Your task to perform on an android device: Go to wifi settings Image 0: 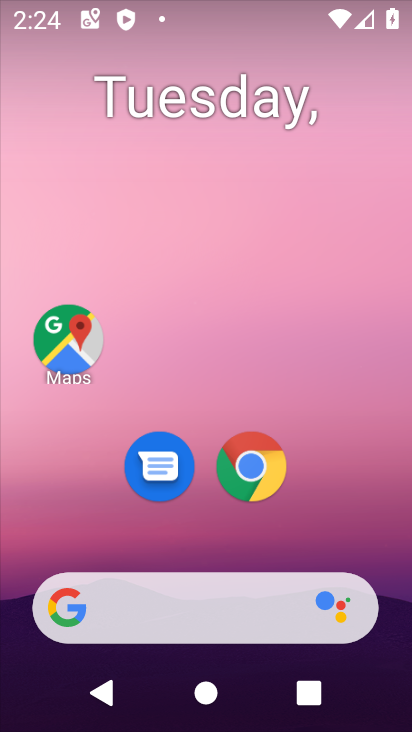
Step 0: drag from (388, 563) to (347, 67)
Your task to perform on an android device: Go to wifi settings Image 1: 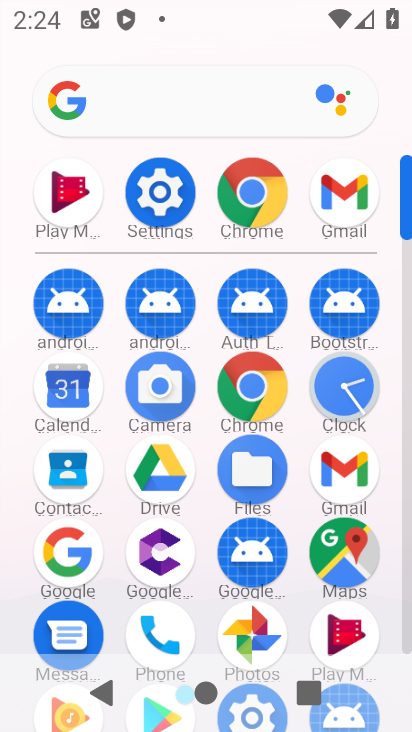
Step 1: click (172, 204)
Your task to perform on an android device: Go to wifi settings Image 2: 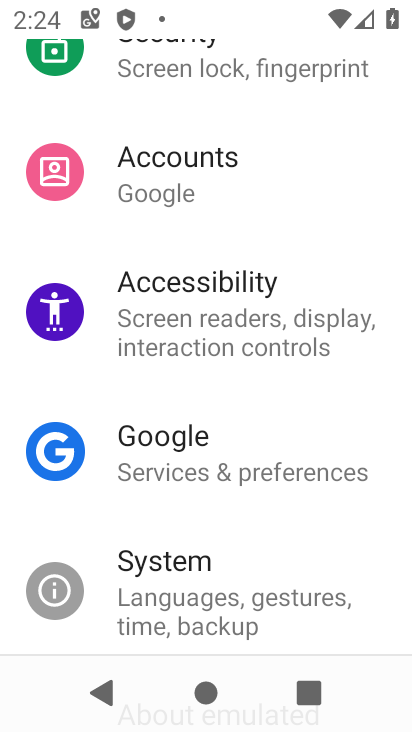
Step 2: task complete